Your task to perform on an android device: turn pop-ups on in chrome Image 0: 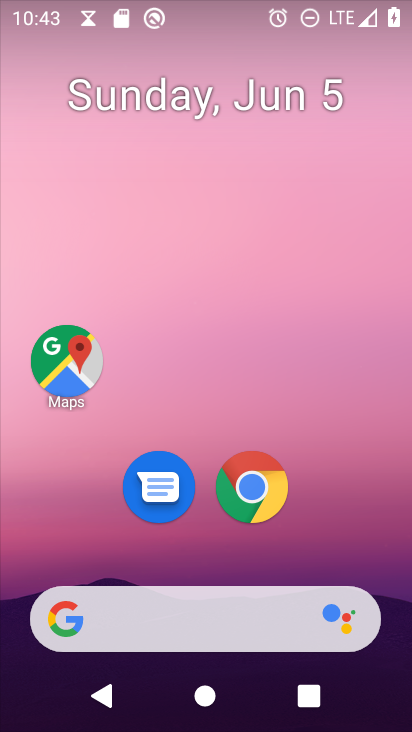
Step 0: click (255, 474)
Your task to perform on an android device: turn pop-ups on in chrome Image 1: 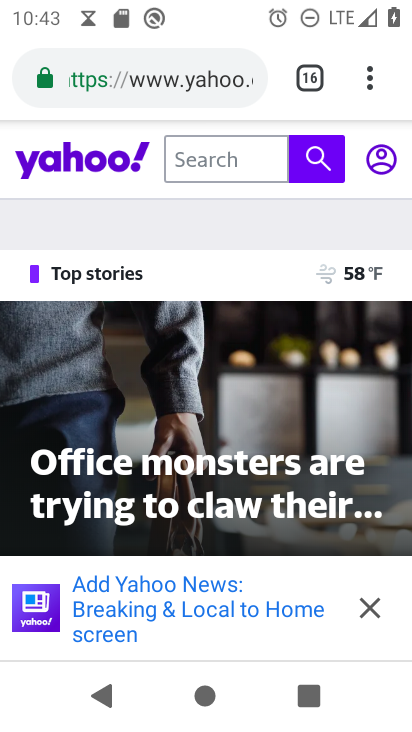
Step 1: click (371, 72)
Your task to perform on an android device: turn pop-ups on in chrome Image 2: 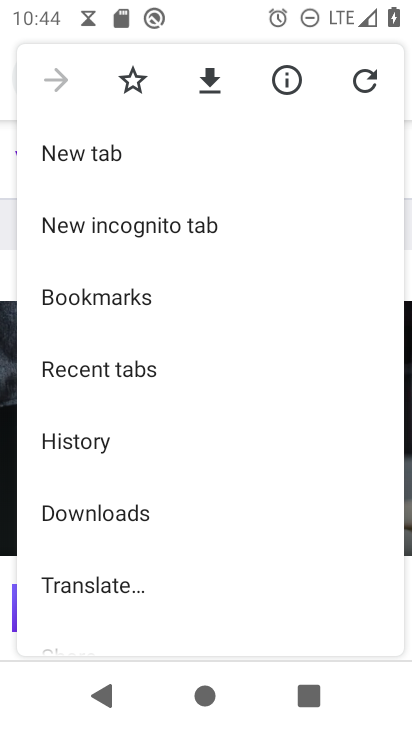
Step 2: drag from (243, 520) to (258, 232)
Your task to perform on an android device: turn pop-ups on in chrome Image 3: 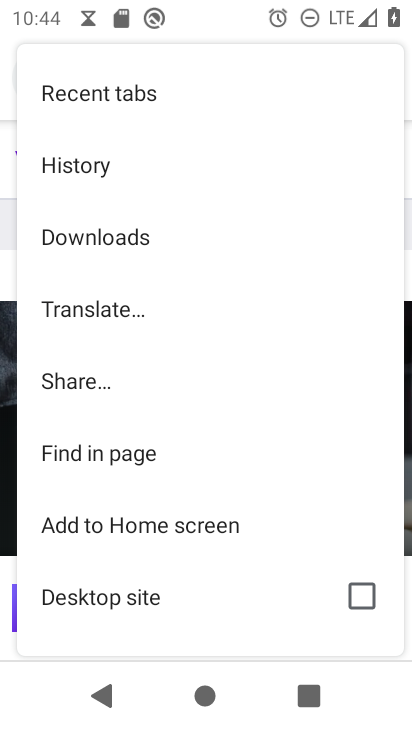
Step 3: drag from (132, 579) to (156, 516)
Your task to perform on an android device: turn pop-ups on in chrome Image 4: 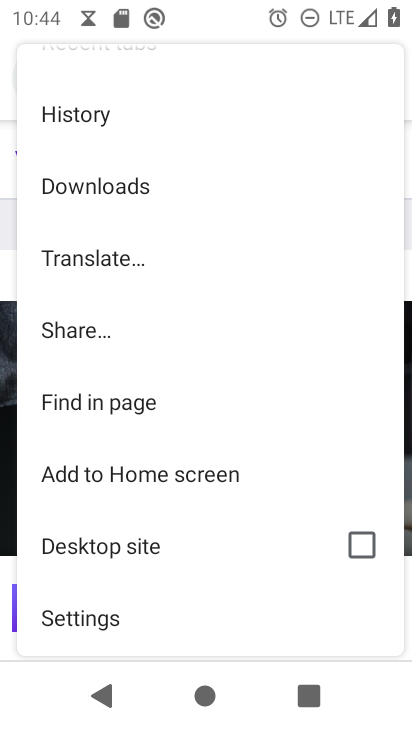
Step 4: click (145, 619)
Your task to perform on an android device: turn pop-ups on in chrome Image 5: 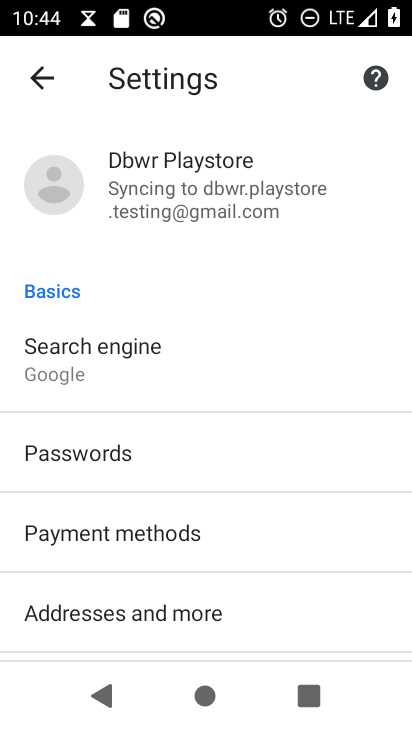
Step 5: drag from (175, 576) to (249, 270)
Your task to perform on an android device: turn pop-ups on in chrome Image 6: 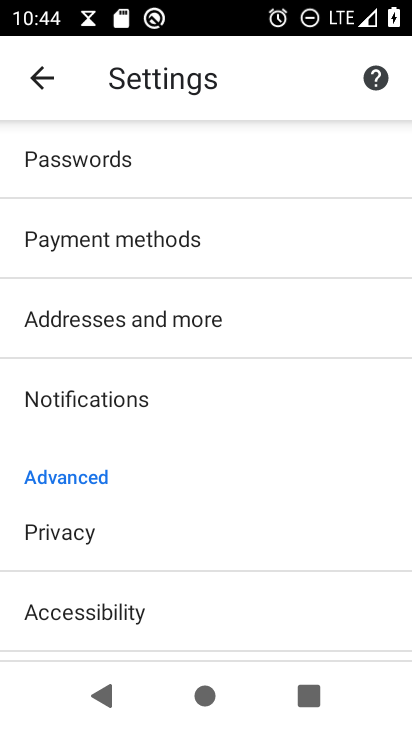
Step 6: drag from (175, 568) to (202, 261)
Your task to perform on an android device: turn pop-ups on in chrome Image 7: 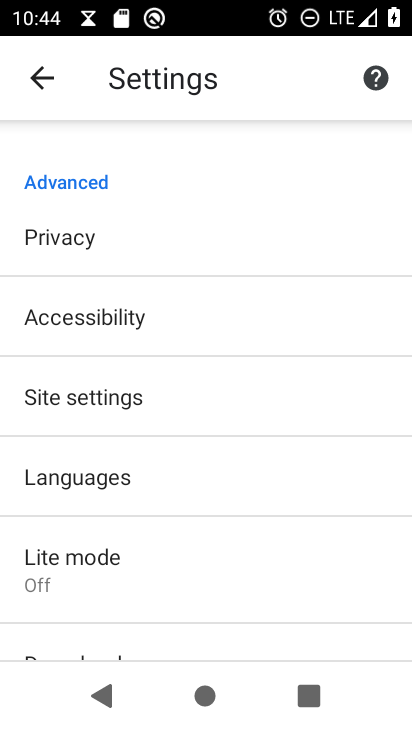
Step 7: click (141, 394)
Your task to perform on an android device: turn pop-ups on in chrome Image 8: 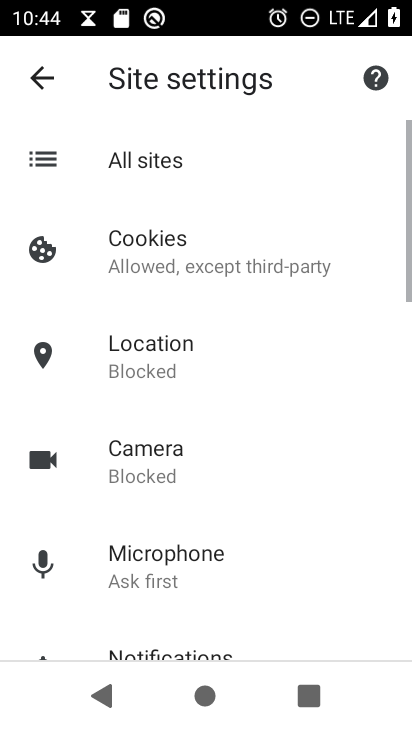
Step 8: drag from (279, 597) to (293, 309)
Your task to perform on an android device: turn pop-ups on in chrome Image 9: 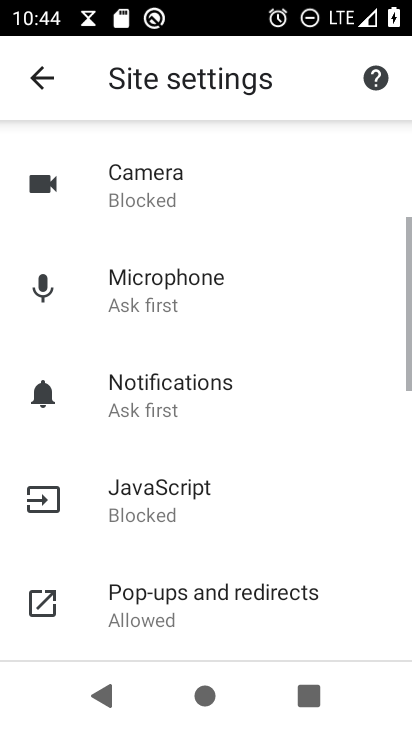
Step 9: click (170, 606)
Your task to perform on an android device: turn pop-ups on in chrome Image 10: 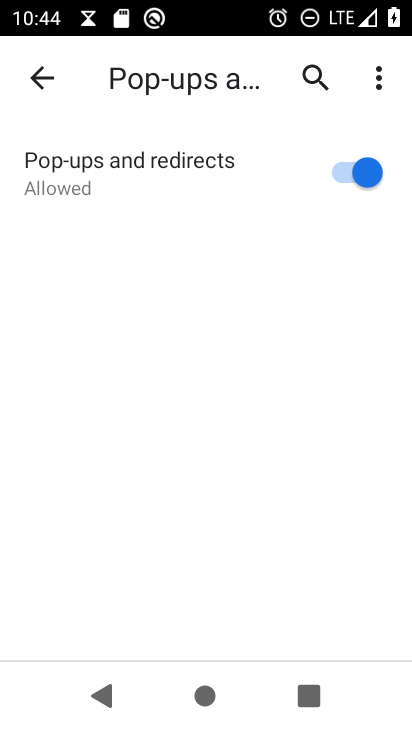
Step 10: task complete